Your task to perform on an android device: Turn off the flashlight Image 0: 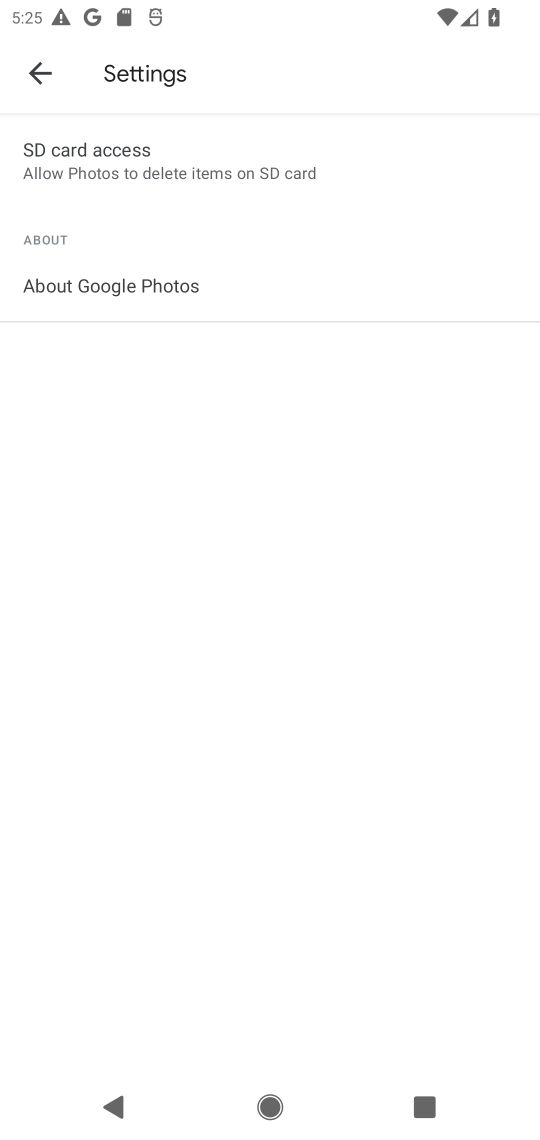
Step 0: drag from (318, 730) to (349, 683)
Your task to perform on an android device: Turn off the flashlight Image 1: 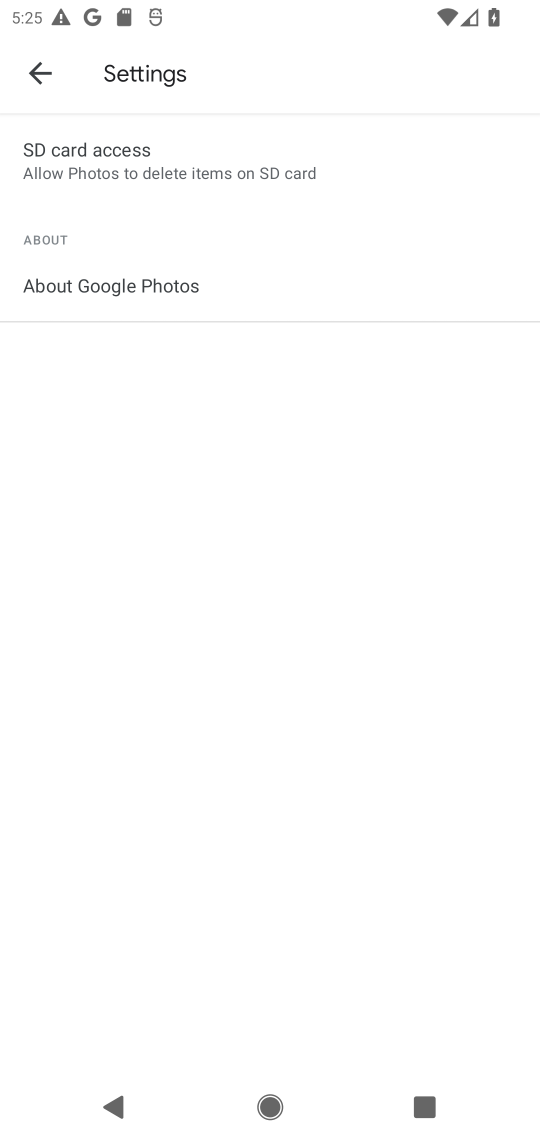
Step 1: task complete